Your task to perform on an android device: clear all cookies in the chrome app Image 0: 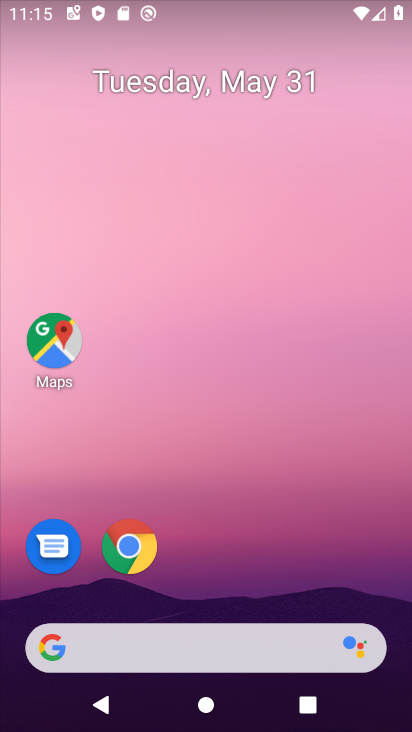
Step 0: click (138, 540)
Your task to perform on an android device: clear all cookies in the chrome app Image 1: 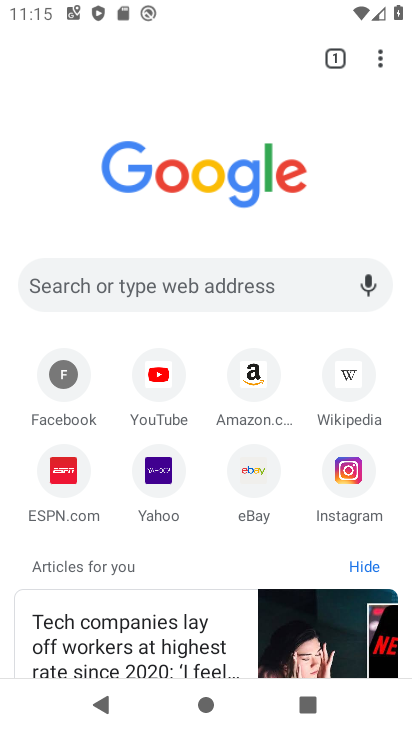
Step 1: click (379, 55)
Your task to perform on an android device: clear all cookies in the chrome app Image 2: 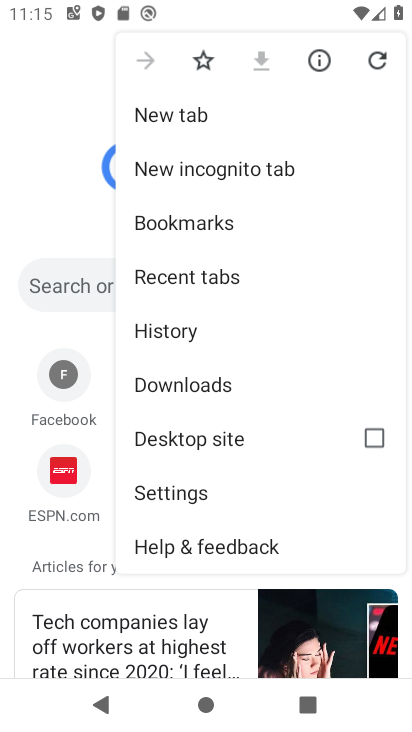
Step 2: click (219, 328)
Your task to perform on an android device: clear all cookies in the chrome app Image 3: 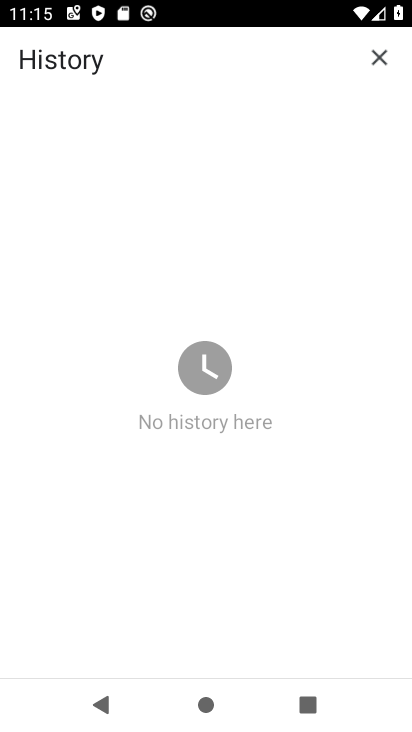
Step 3: task complete